Your task to perform on an android device: read, delete, or share a saved page in the chrome app Image 0: 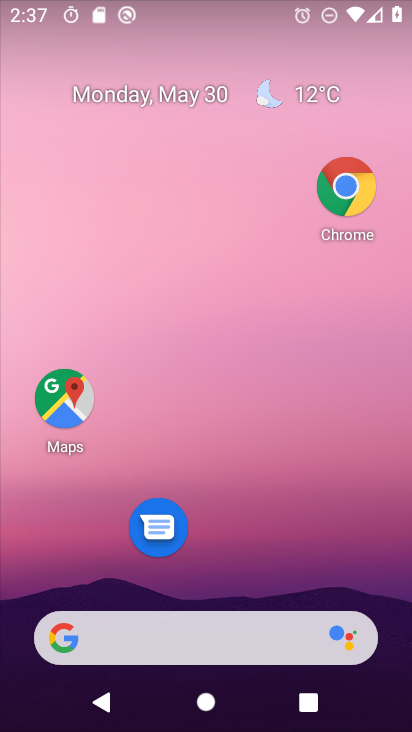
Step 0: drag from (204, 515) to (117, 21)
Your task to perform on an android device: read, delete, or share a saved page in the chrome app Image 1: 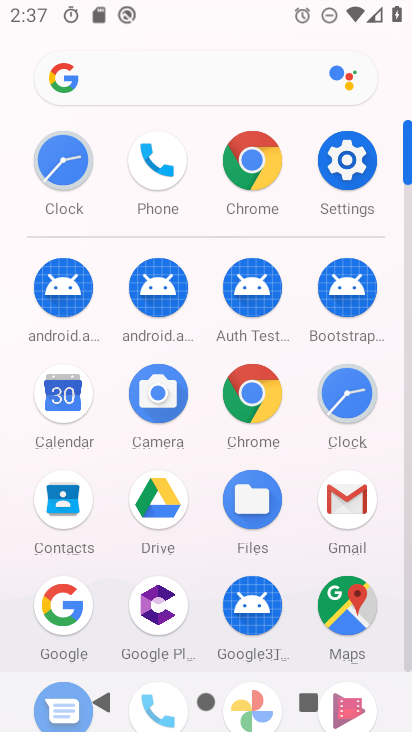
Step 1: click (249, 154)
Your task to perform on an android device: read, delete, or share a saved page in the chrome app Image 2: 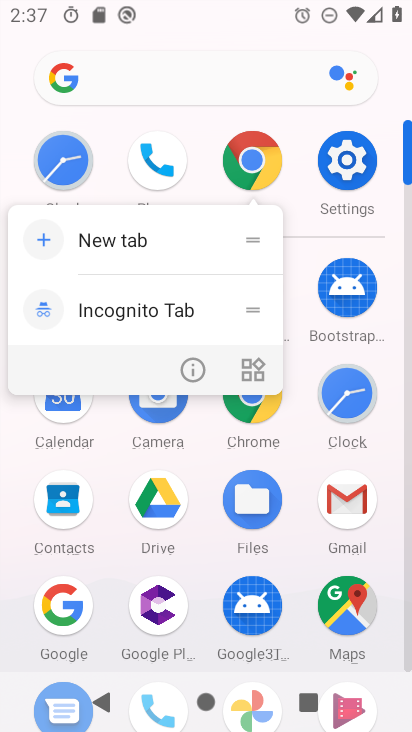
Step 2: click (193, 370)
Your task to perform on an android device: read, delete, or share a saved page in the chrome app Image 3: 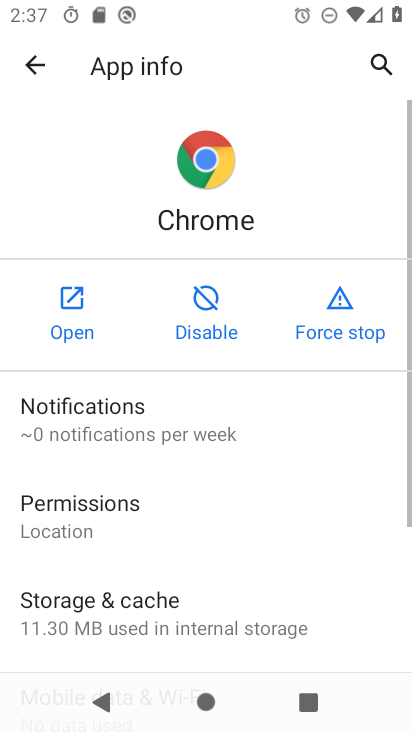
Step 3: click (71, 322)
Your task to perform on an android device: read, delete, or share a saved page in the chrome app Image 4: 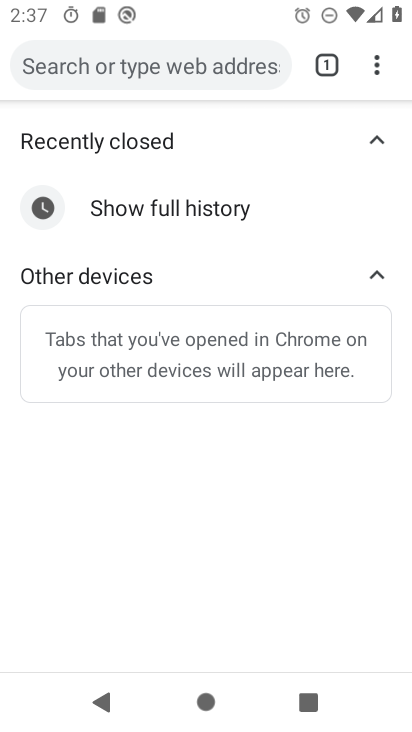
Step 4: click (381, 64)
Your task to perform on an android device: read, delete, or share a saved page in the chrome app Image 5: 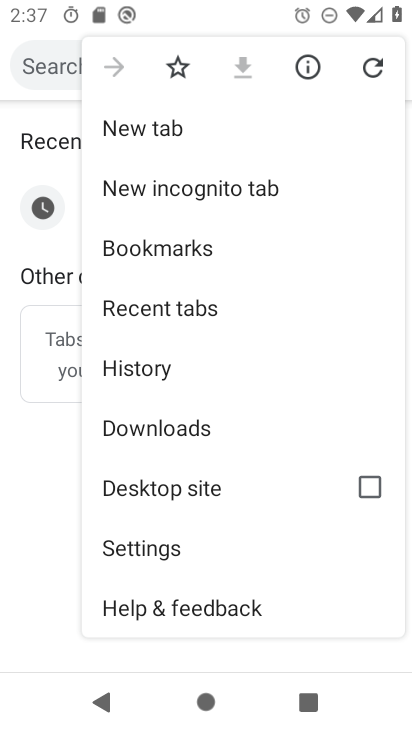
Step 5: click (191, 246)
Your task to perform on an android device: read, delete, or share a saved page in the chrome app Image 6: 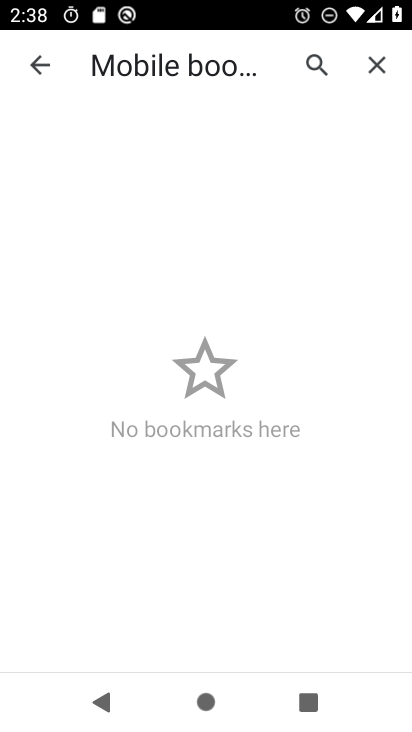
Step 6: task complete